Your task to perform on an android device: Open Yahoo.com Image 0: 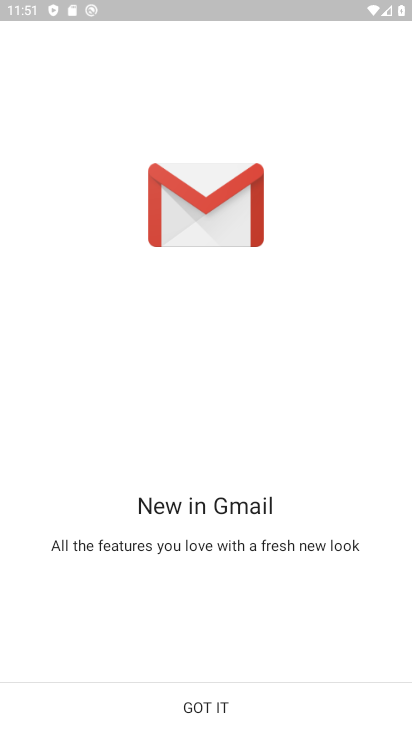
Step 0: click (215, 710)
Your task to perform on an android device: Open Yahoo.com Image 1: 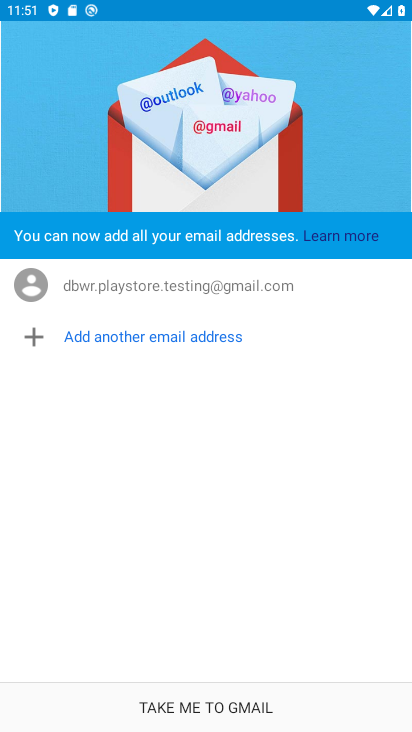
Step 1: click (215, 710)
Your task to perform on an android device: Open Yahoo.com Image 2: 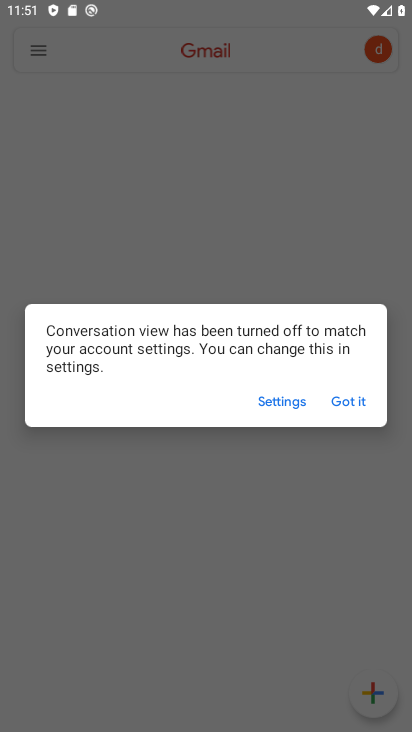
Step 2: press home button
Your task to perform on an android device: Open Yahoo.com Image 3: 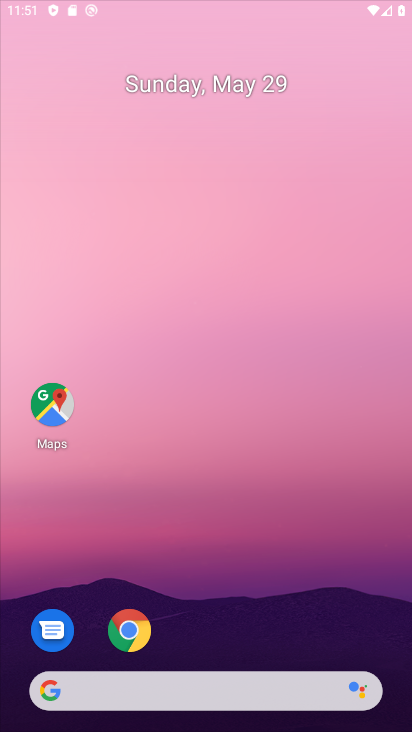
Step 3: click (345, 403)
Your task to perform on an android device: Open Yahoo.com Image 4: 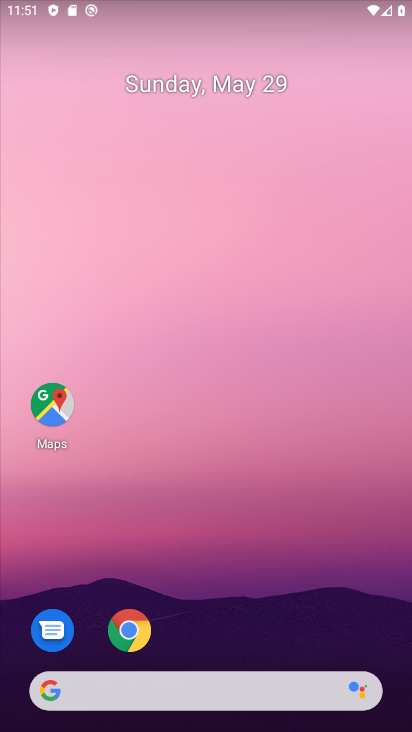
Step 4: click (126, 647)
Your task to perform on an android device: Open Yahoo.com Image 5: 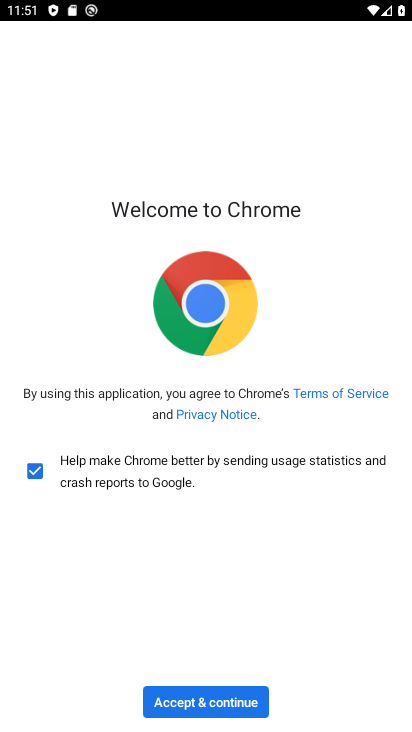
Step 5: click (222, 707)
Your task to perform on an android device: Open Yahoo.com Image 6: 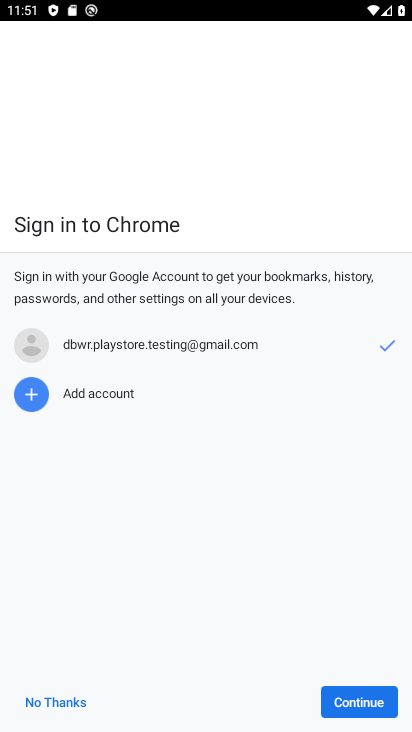
Step 6: click (372, 701)
Your task to perform on an android device: Open Yahoo.com Image 7: 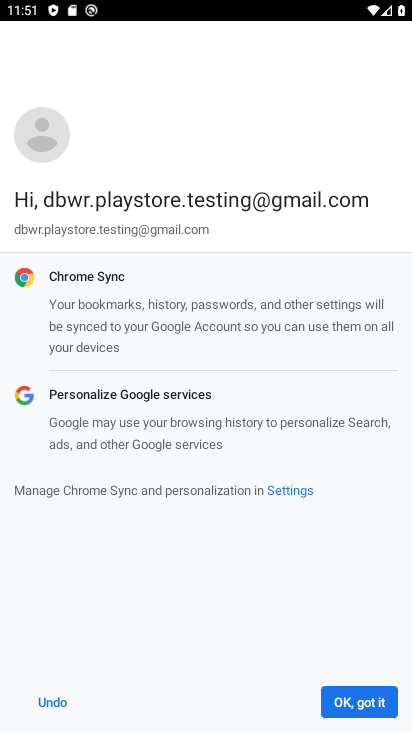
Step 7: click (372, 707)
Your task to perform on an android device: Open Yahoo.com Image 8: 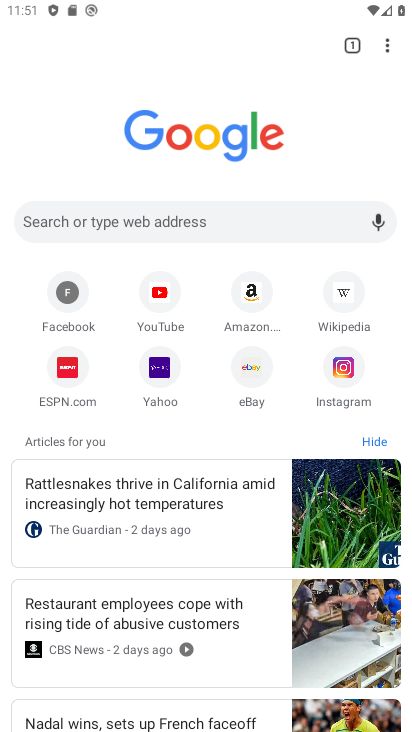
Step 8: click (161, 379)
Your task to perform on an android device: Open Yahoo.com Image 9: 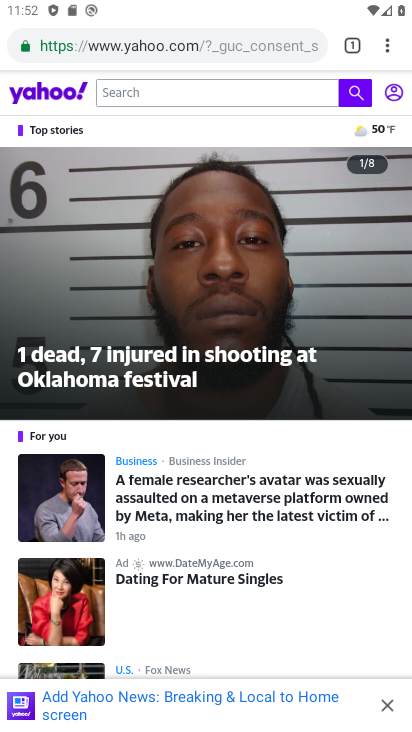
Step 9: task complete